Your task to perform on an android device: Go to Android settings Image 0: 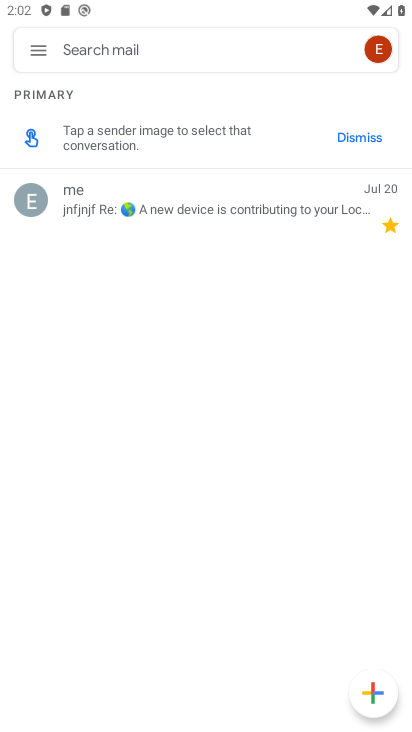
Step 0: press home button
Your task to perform on an android device: Go to Android settings Image 1: 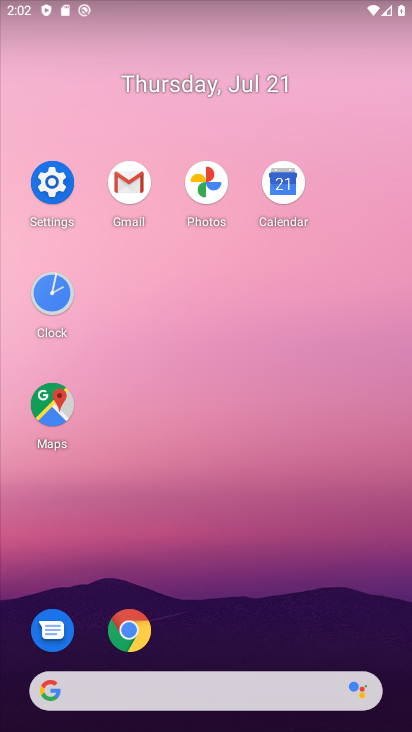
Step 1: click (53, 180)
Your task to perform on an android device: Go to Android settings Image 2: 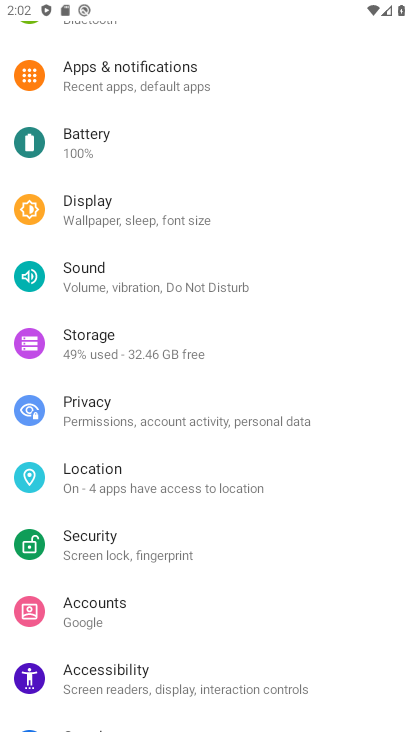
Step 2: task complete